Your task to perform on an android device: open app "Airtel Thanks" (install if not already installed), go to login, and select forgot password Image 0: 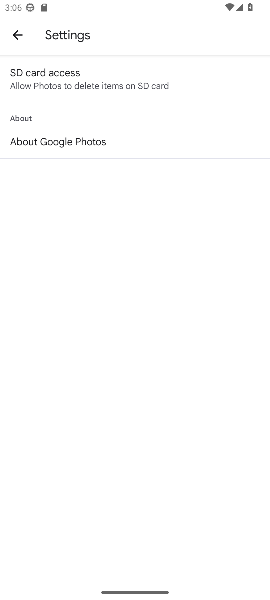
Step 0: press home button
Your task to perform on an android device: open app "Airtel Thanks" (install if not already installed), go to login, and select forgot password Image 1: 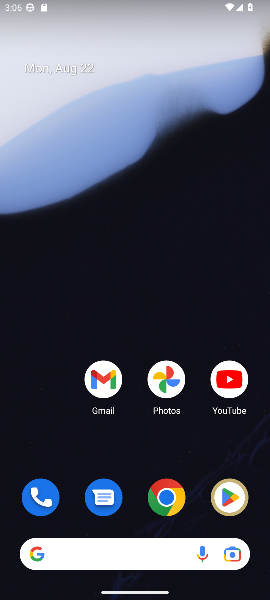
Step 1: click (226, 493)
Your task to perform on an android device: open app "Airtel Thanks" (install if not already installed), go to login, and select forgot password Image 2: 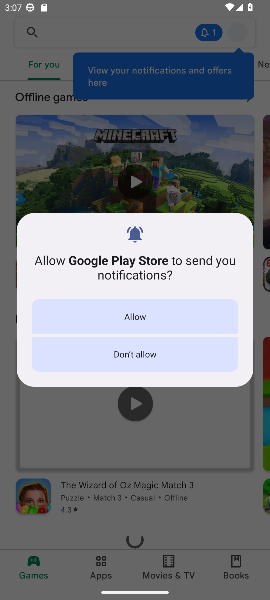
Step 2: click (136, 320)
Your task to perform on an android device: open app "Airtel Thanks" (install if not already installed), go to login, and select forgot password Image 3: 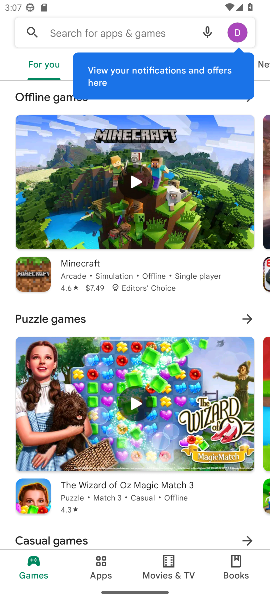
Step 3: click (100, 564)
Your task to perform on an android device: open app "Airtel Thanks" (install if not already installed), go to login, and select forgot password Image 4: 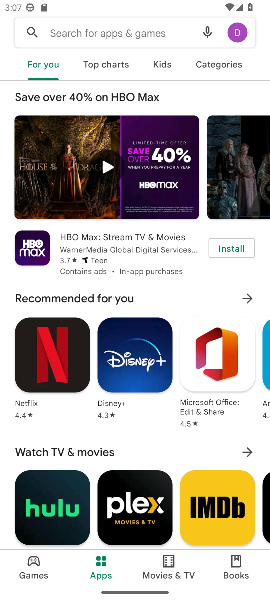
Step 4: click (102, 30)
Your task to perform on an android device: open app "Airtel Thanks" (install if not already installed), go to login, and select forgot password Image 5: 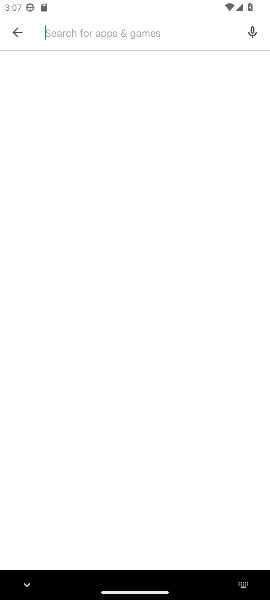
Step 5: type "Airtel Thanks"
Your task to perform on an android device: open app "Airtel Thanks" (install if not already installed), go to login, and select forgot password Image 6: 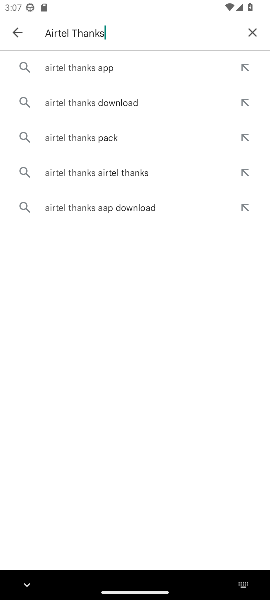
Step 6: click (100, 59)
Your task to perform on an android device: open app "Airtel Thanks" (install if not already installed), go to login, and select forgot password Image 7: 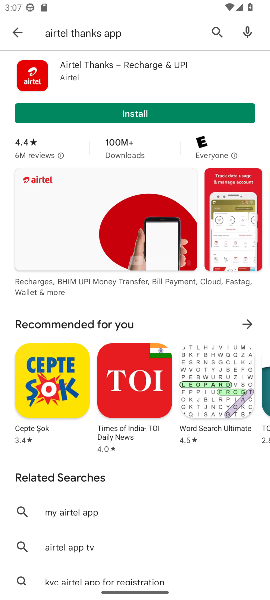
Step 7: click (142, 107)
Your task to perform on an android device: open app "Airtel Thanks" (install if not already installed), go to login, and select forgot password Image 8: 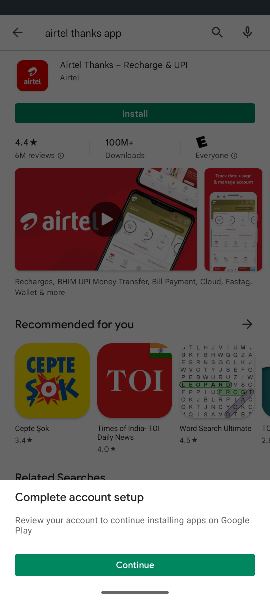
Step 8: click (137, 561)
Your task to perform on an android device: open app "Airtel Thanks" (install if not already installed), go to login, and select forgot password Image 9: 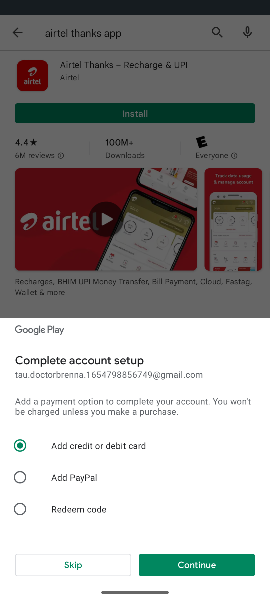
Step 9: click (64, 560)
Your task to perform on an android device: open app "Airtel Thanks" (install if not already installed), go to login, and select forgot password Image 10: 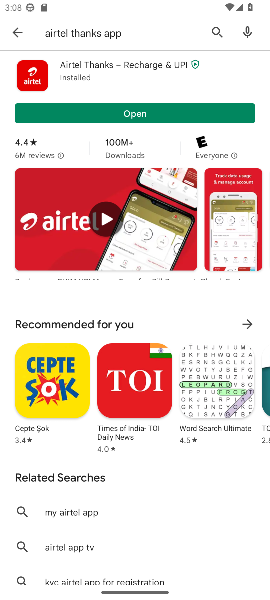
Step 10: click (124, 111)
Your task to perform on an android device: open app "Airtel Thanks" (install if not already installed), go to login, and select forgot password Image 11: 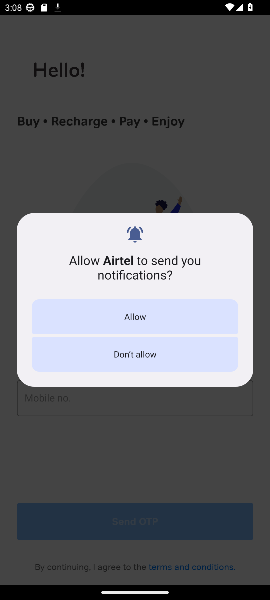
Step 11: click (126, 315)
Your task to perform on an android device: open app "Airtel Thanks" (install if not already installed), go to login, and select forgot password Image 12: 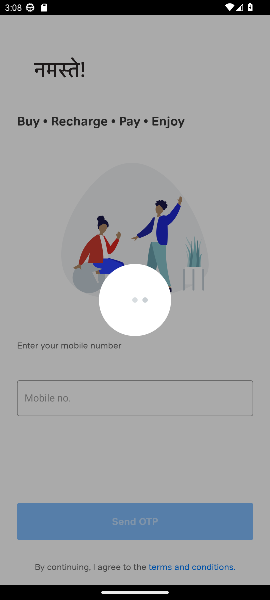
Step 12: task complete